Your task to perform on an android device: Search for logitech g502 on ebay, select the first entry, add it to the cart, then select checkout. Image 0: 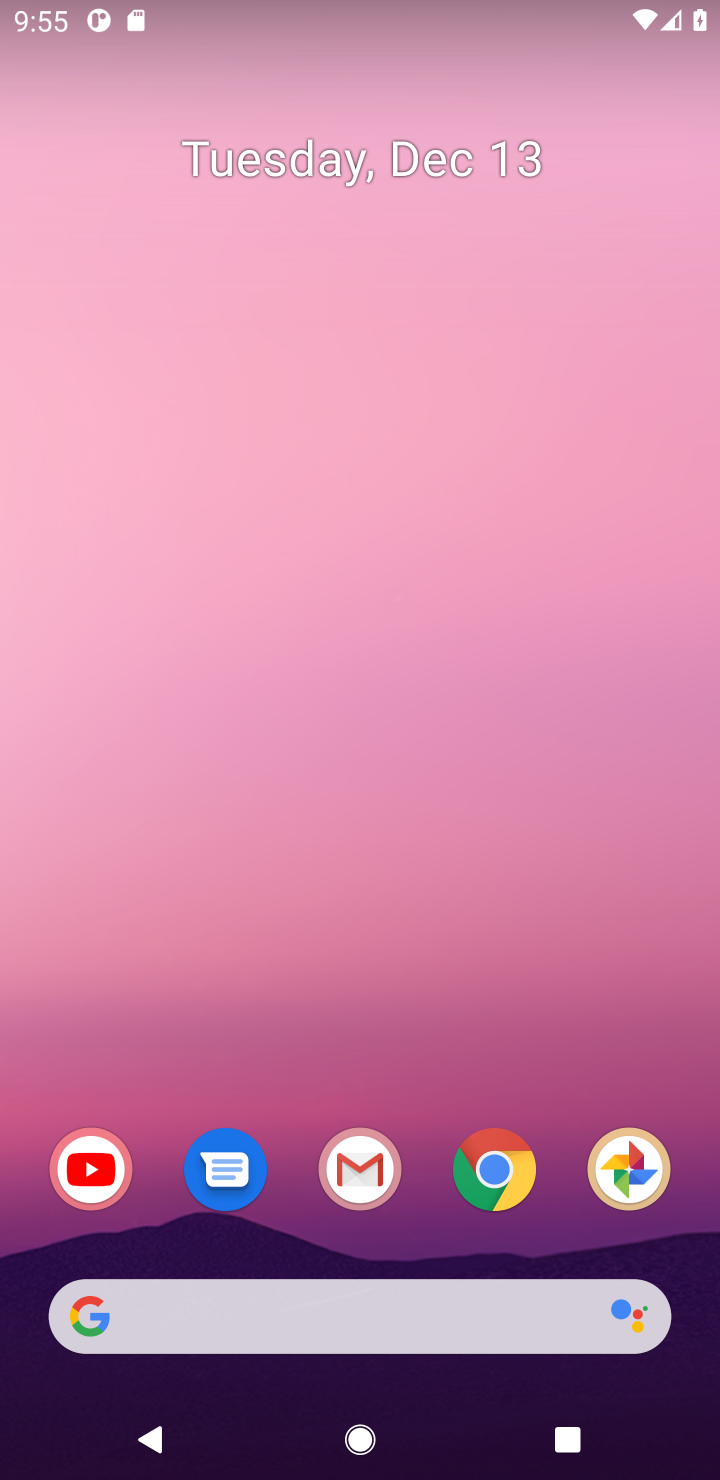
Step 0: click (442, 1318)
Your task to perform on an android device: Search for logitech g502 on ebay, select the first entry, add it to the cart, then select checkout. Image 1: 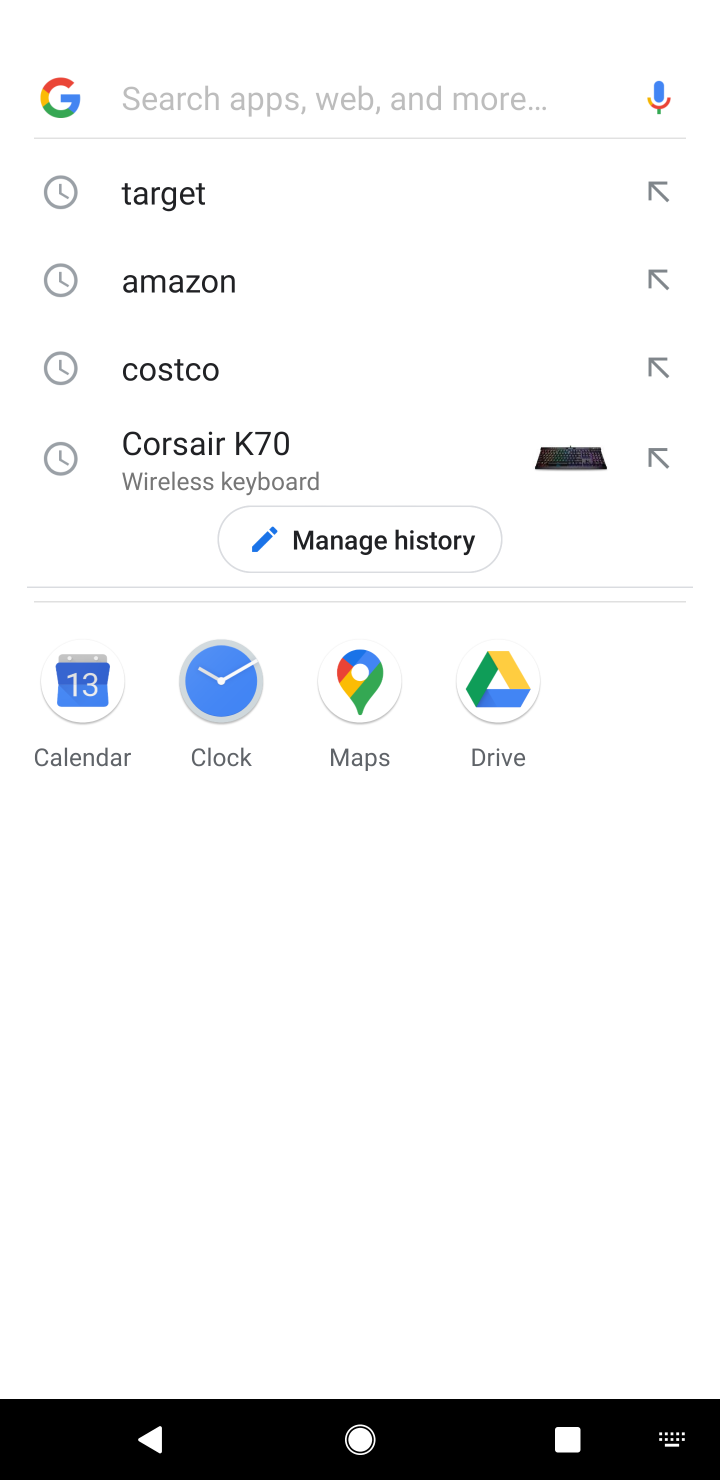
Step 1: type "ebay.com"
Your task to perform on an android device: Search for logitech g502 on ebay, select the first entry, add it to the cart, then select checkout. Image 2: 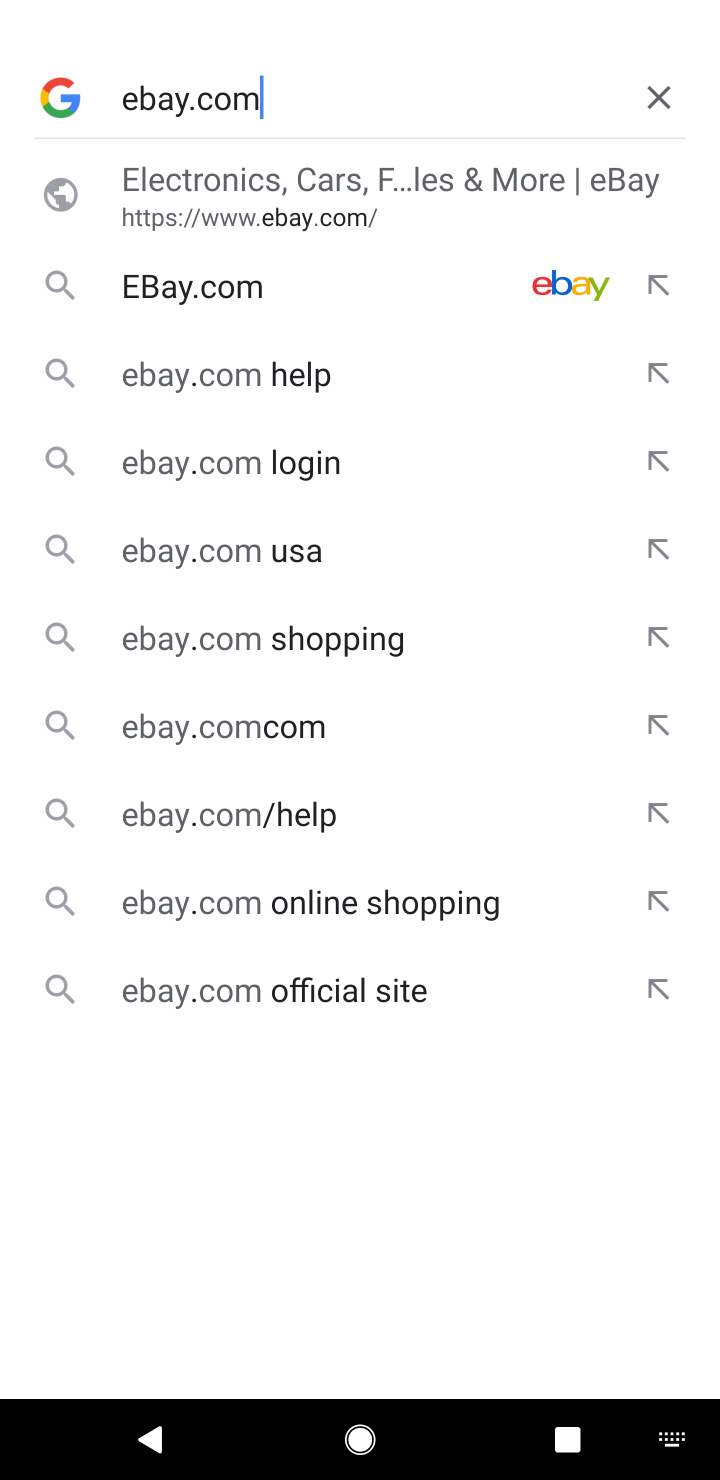
Step 2: click (173, 189)
Your task to perform on an android device: Search for logitech g502 on ebay, select the first entry, add it to the cart, then select checkout. Image 3: 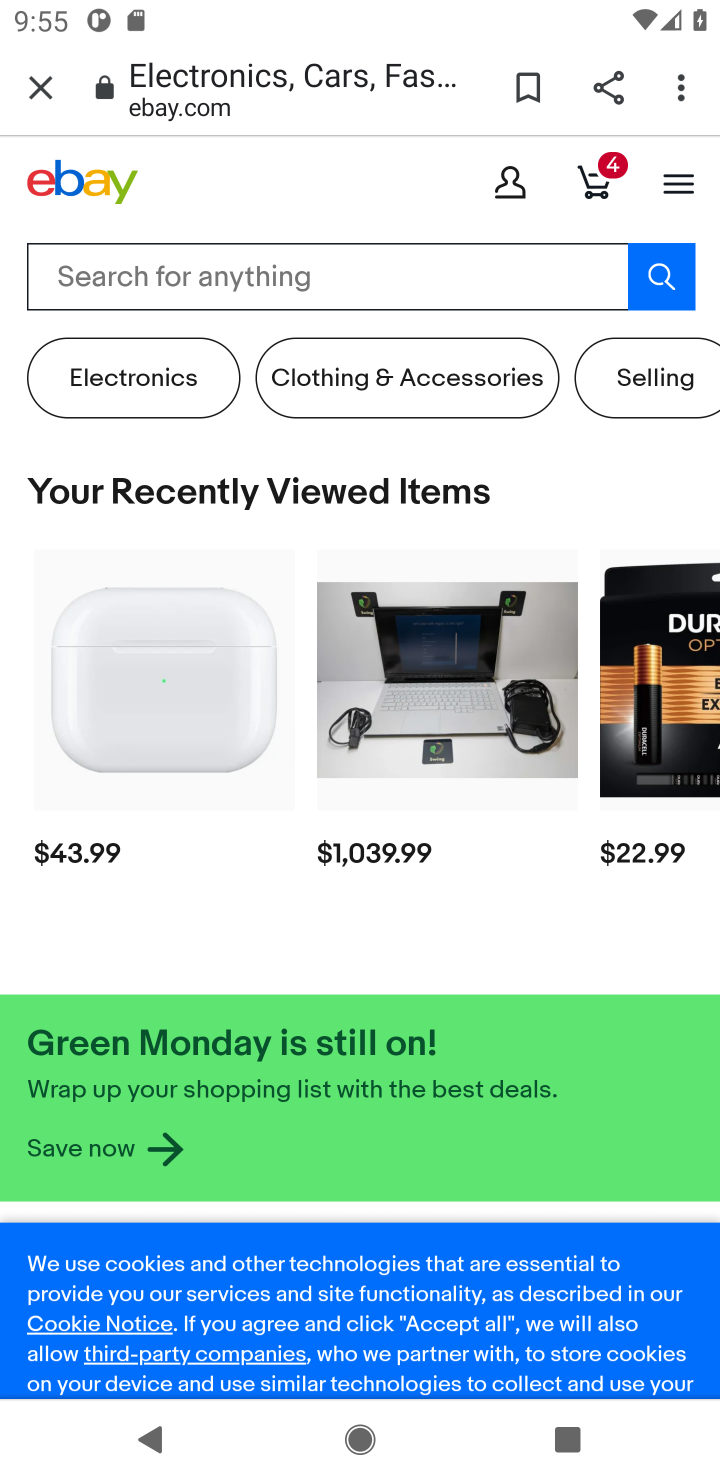
Step 3: click (276, 264)
Your task to perform on an android device: Search for logitech g502 on ebay, select the first entry, add it to the cart, then select checkout. Image 4: 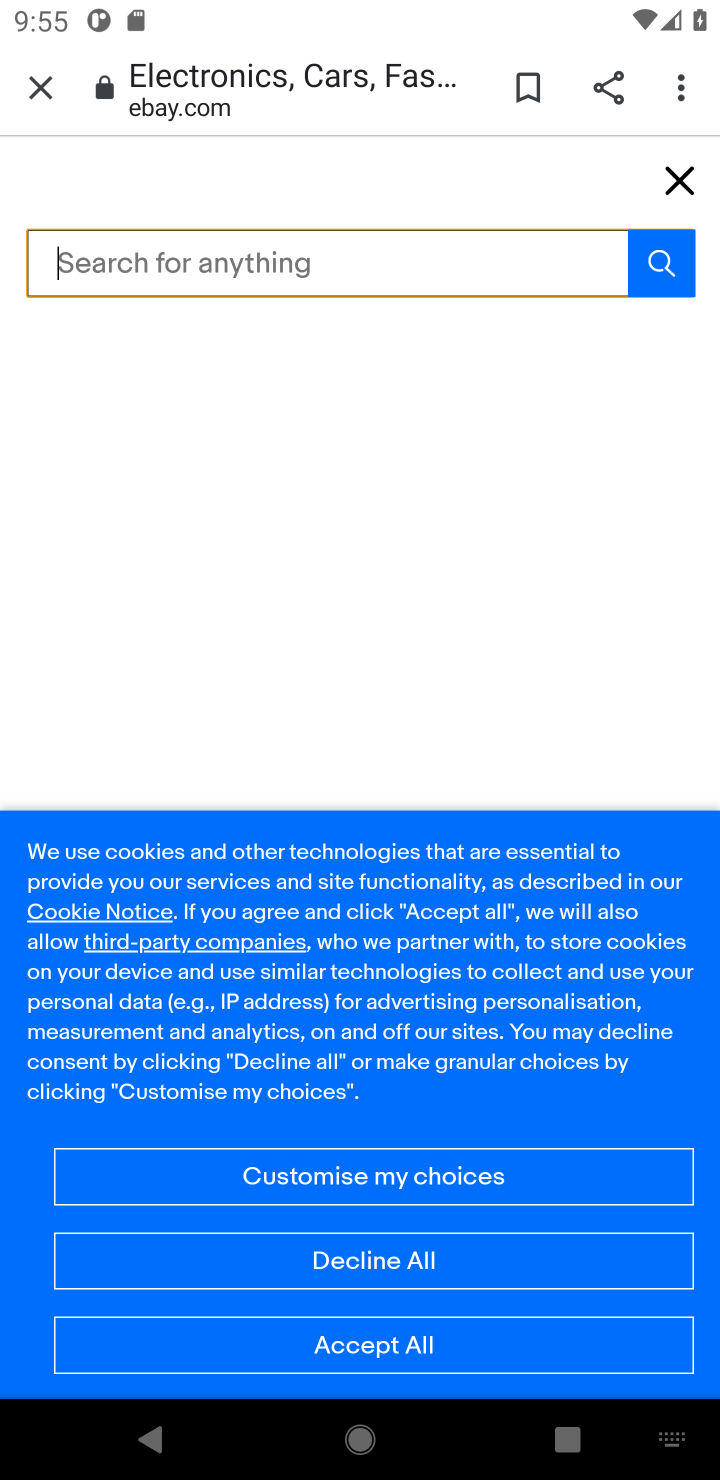
Step 4: type "logitech gpro"
Your task to perform on an android device: Search for logitech g502 on ebay, select the first entry, add it to the cart, then select checkout. Image 5: 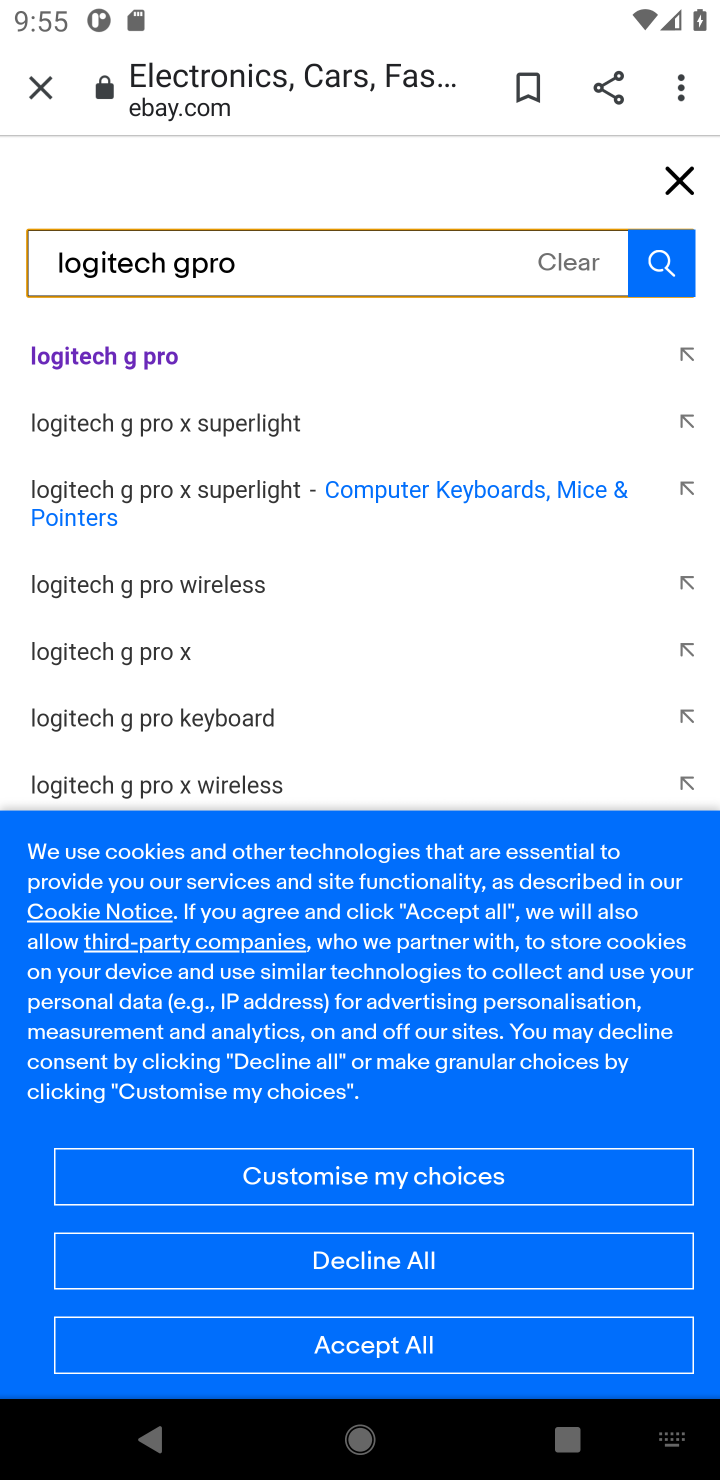
Step 5: click (131, 370)
Your task to perform on an android device: Search for logitech g502 on ebay, select the first entry, add it to the cart, then select checkout. Image 6: 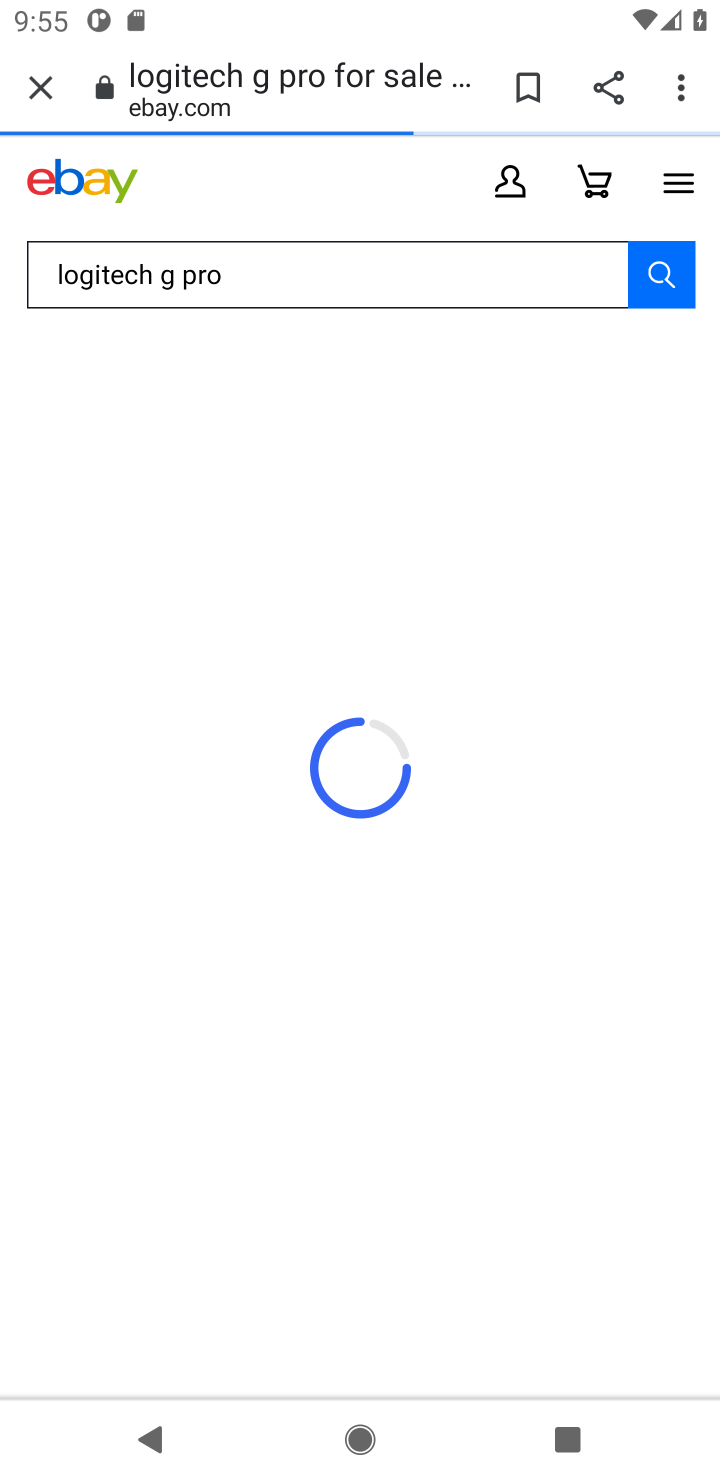
Step 6: task complete